Your task to perform on an android device: Open Chrome and go to settings Image 0: 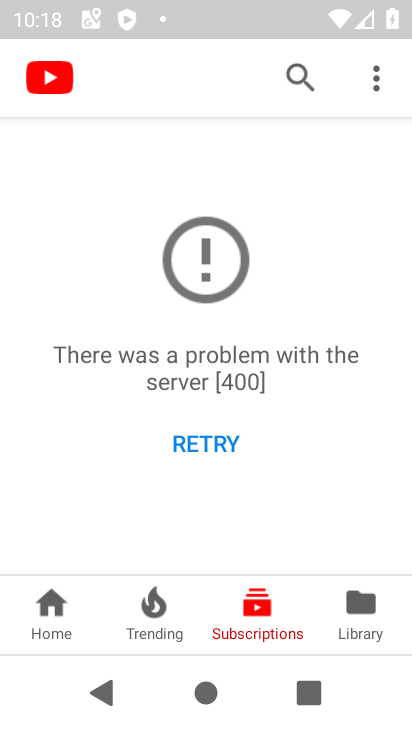
Step 0: press home button
Your task to perform on an android device: Open Chrome and go to settings Image 1: 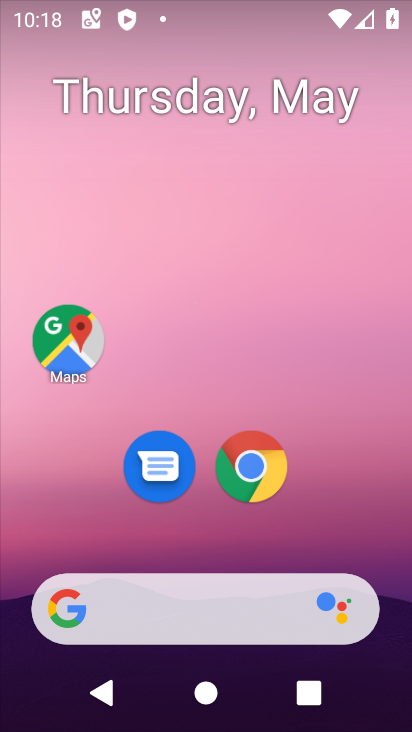
Step 1: click (248, 461)
Your task to perform on an android device: Open Chrome and go to settings Image 2: 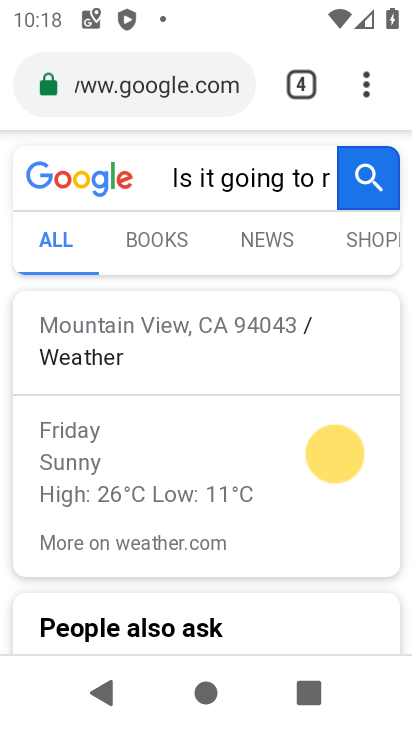
Step 2: click (360, 77)
Your task to perform on an android device: Open Chrome and go to settings Image 3: 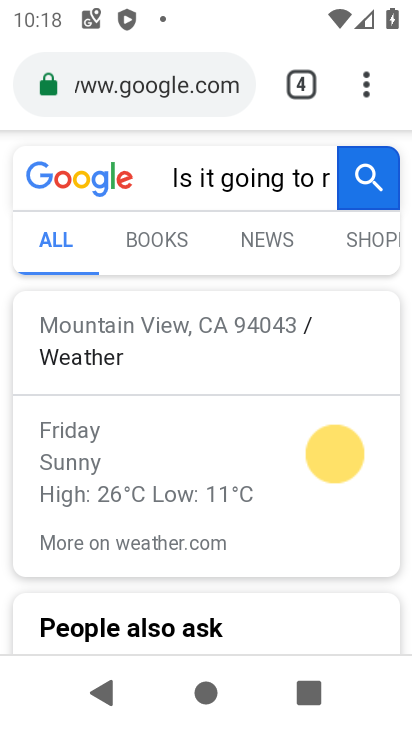
Step 3: click (384, 65)
Your task to perform on an android device: Open Chrome and go to settings Image 4: 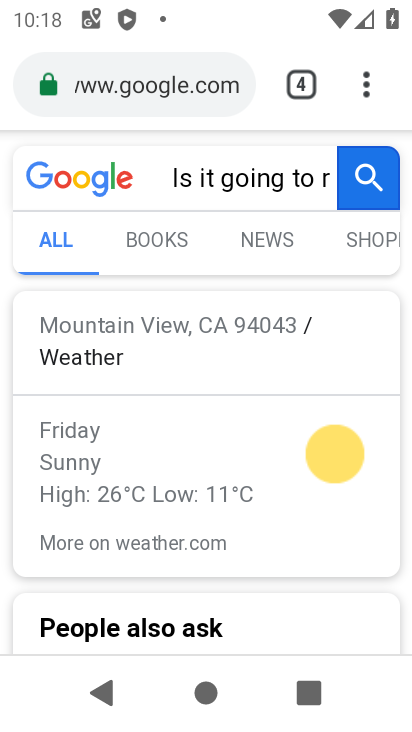
Step 4: click (376, 84)
Your task to perform on an android device: Open Chrome and go to settings Image 5: 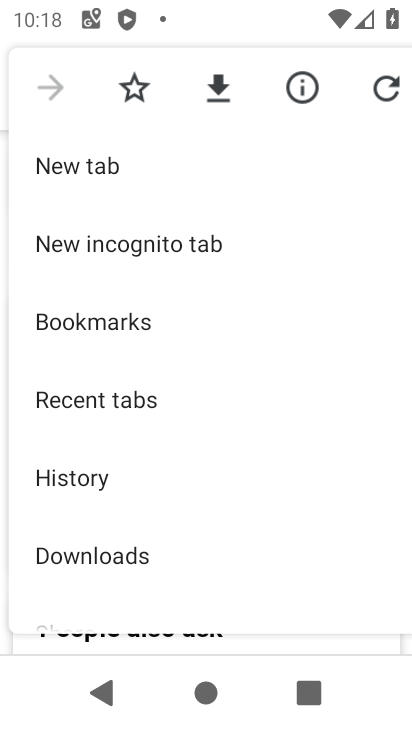
Step 5: drag from (196, 564) to (258, 178)
Your task to perform on an android device: Open Chrome and go to settings Image 6: 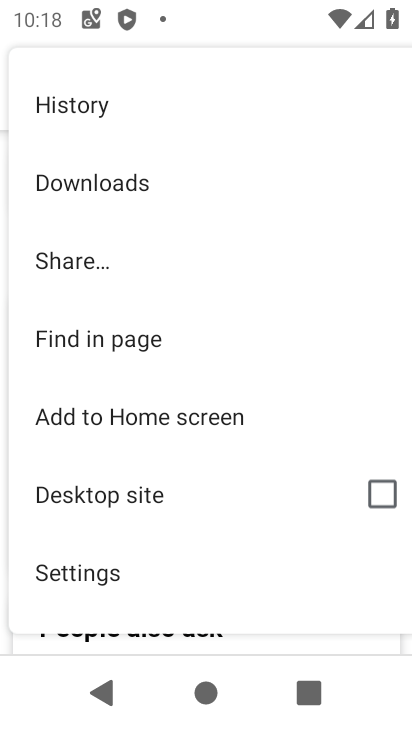
Step 6: click (137, 571)
Your task to perform on an android device: Open Chrome and go to settings Image 7: 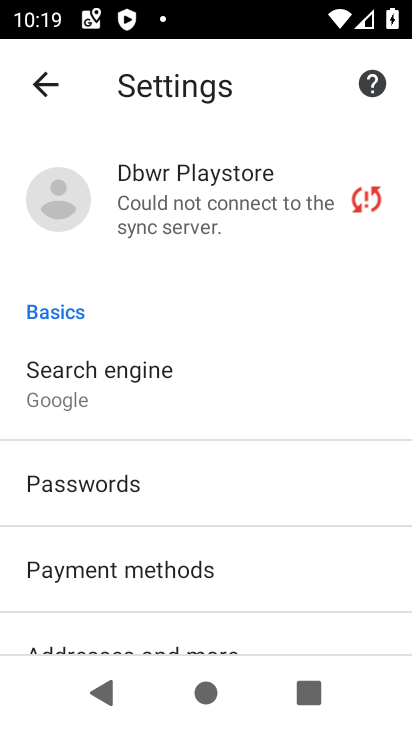
Step 7: task complete